Your task to perform on an android device: turn off smart reply in the gmail app Image 0: 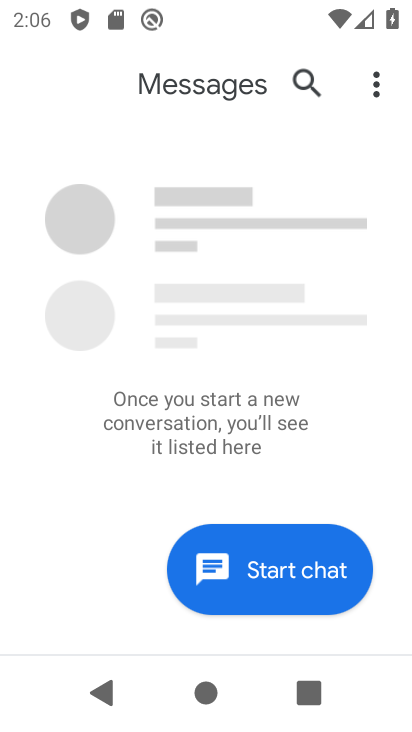
Step 0: press home button
Your task to perform on an android device: turn off smart reply in the gmail app Image 1: 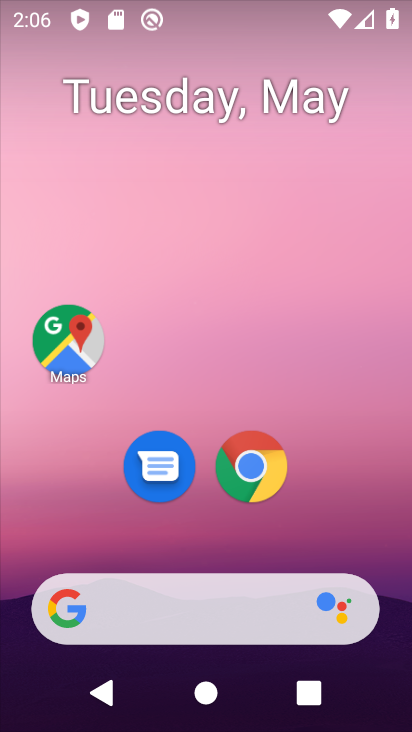
Step 1: drag from (372, 201) to (387, 23)
Your task to perform on an android device: turn off smart reply in the gmail app Image 2: 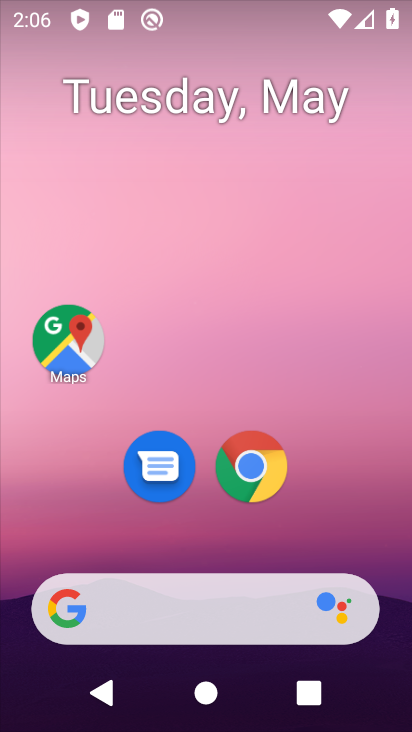
Step 2: drag from (320, 562) to (347, 1)
Your task to perform on an android device: turn off smart reply in the gmail app Image 3: 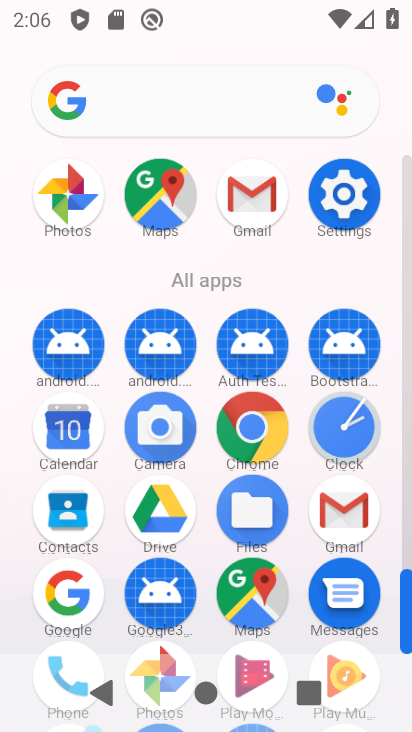
Step 3: click (329, 509)
Your task to perform on an android device: turn off smart reply in the gmail app Image 4: 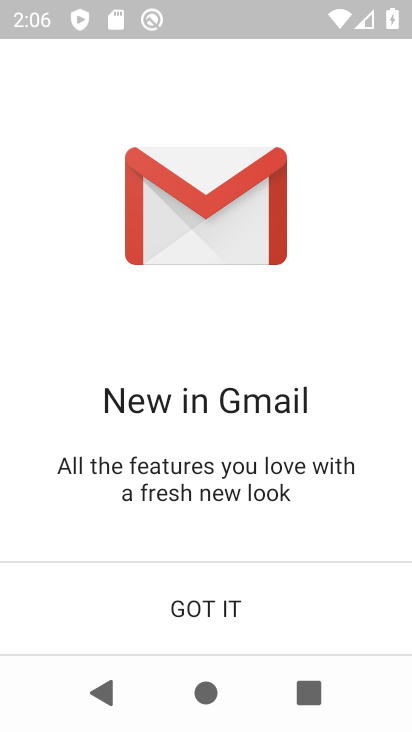
Step 4: click (246, 610)
Your task to perform on an android device: turn off smart reply in the gmail app Image 5: 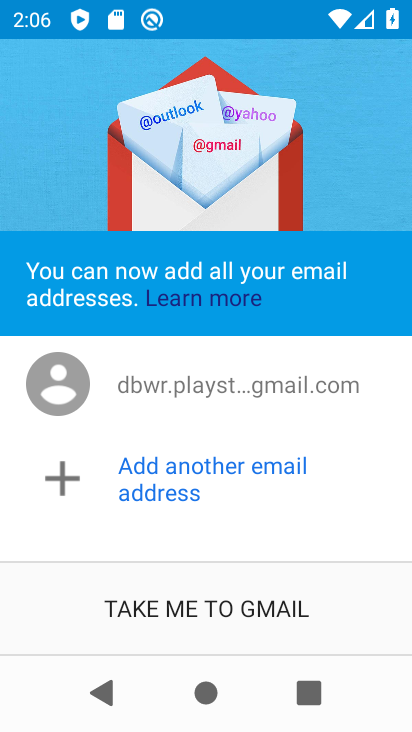
Step 5: click (225, 600)
Your task to perform on an android device: turn off smart reply in the gmail app Image 6: 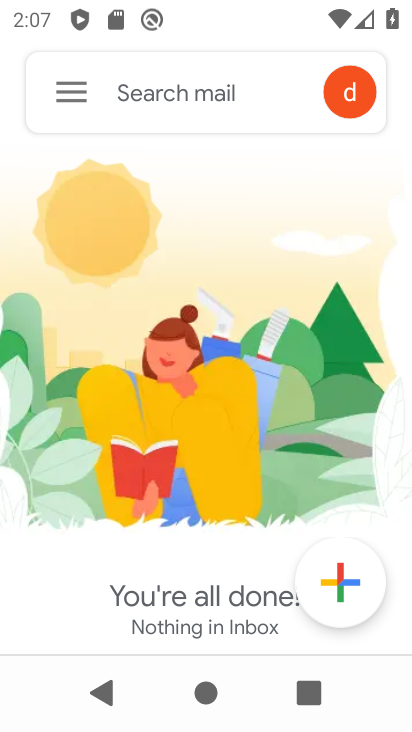
Step 6: click (76, 104)
Your task to perform on an android device: turn off smart reply in the gmail app Image 7: 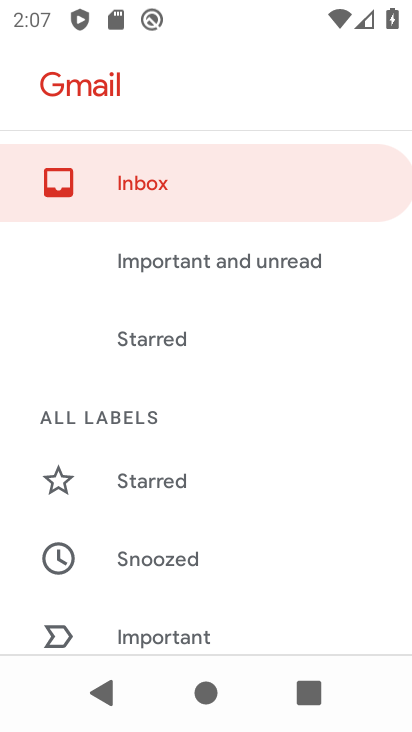
Step 7: drag from (195, 534) to (293, 152)
Your task to perform on an android device: turn off smart reply in the gmail app Image 8: 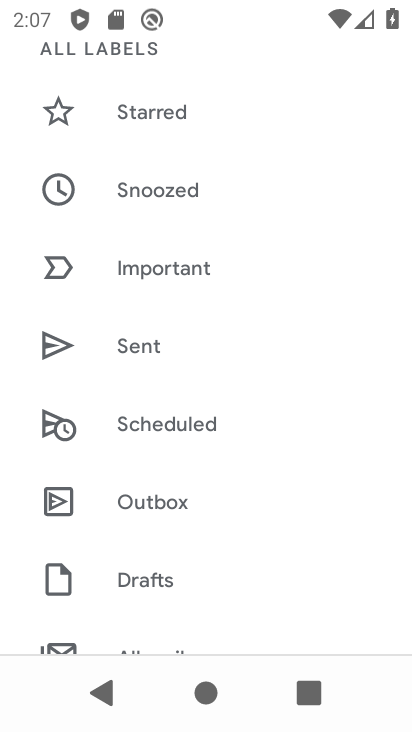
Step 8: drag from (171, 513) to (162, 166)
Your task to perform on an android device: turn off smart reply in the gmail app Image 9: 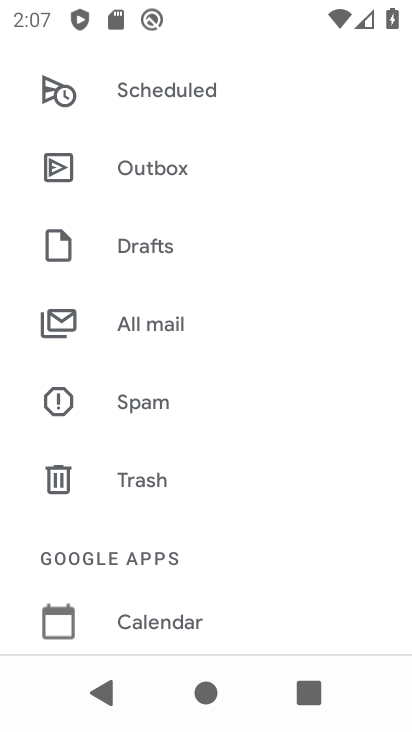
Step 9: drag from (102, 579) to (113, 121)
Your task to perform on an android device: turn off smart reply in the gmail app Image 10: 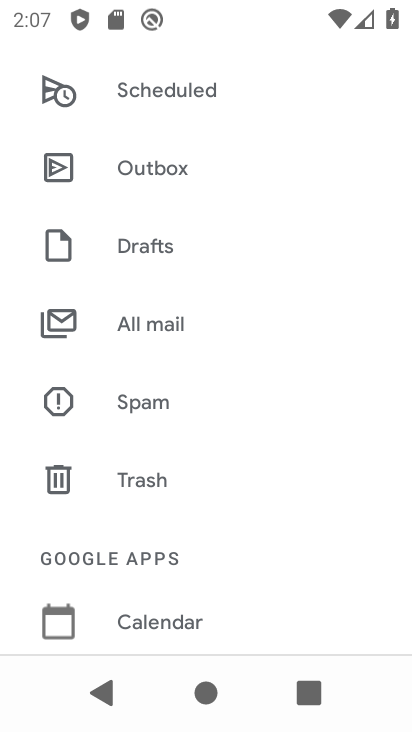
Step 10: drag from (171, 545) to (298, 58)
Your task to perform on an android device: turn off smart reply in the gmail app Image 11: 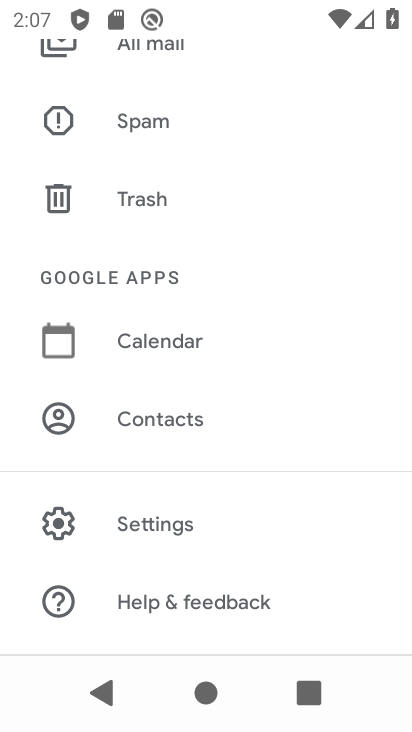
Step 11: click (209, 539)
Your task to perform on an android device: turn off smart reply in the gmail app Image 12: 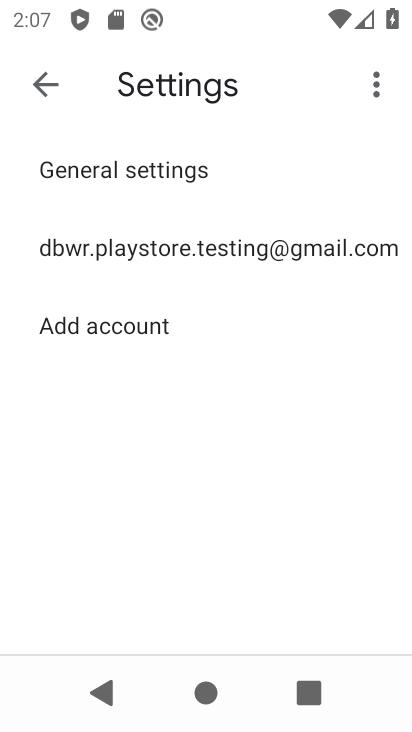
Step 12: click (215, 266)
Your task to perform on an android device: turn off smart reply in the gmail app Image 13: 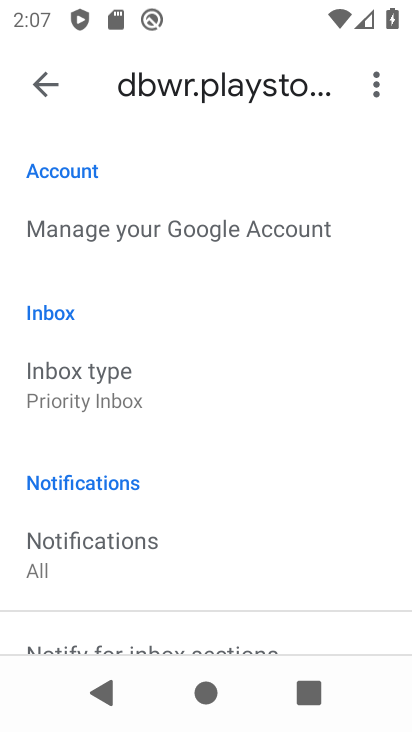
Step 13: drag from (196, 519) to (256, 40)
Your task to perform on an android device: turn off smart reply in the gmail app Image 14: 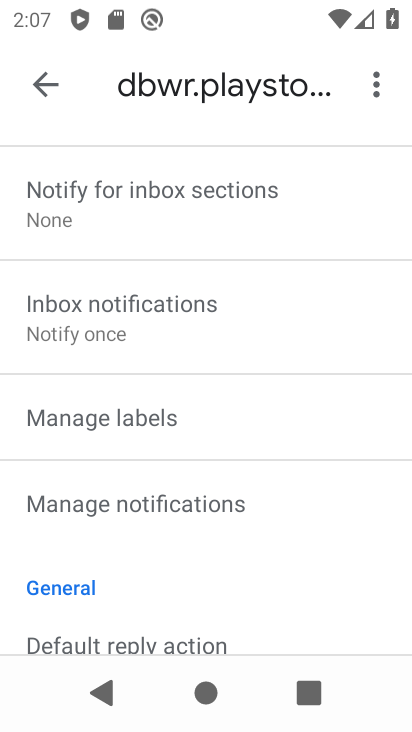
Step 14: drag from (235, 514) to (261, 177)
Your task to perform on an android device: turn off smart reply in the gmail app Image 15: 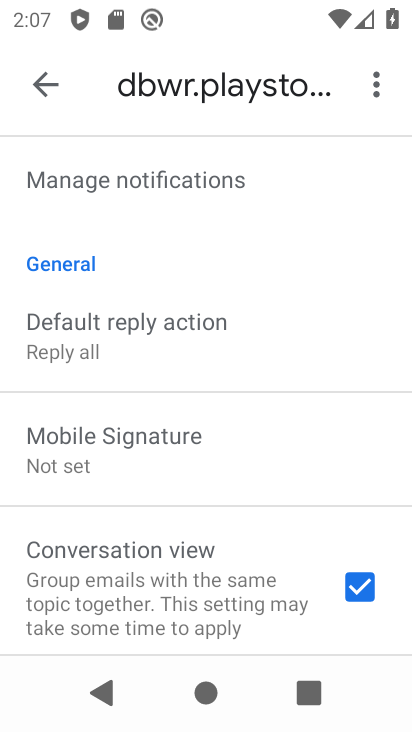
Step 15: drag from (188, 507) to (205, 190)
Your task to perform on an android device: turn off smart reply in the gmail app Image 16: 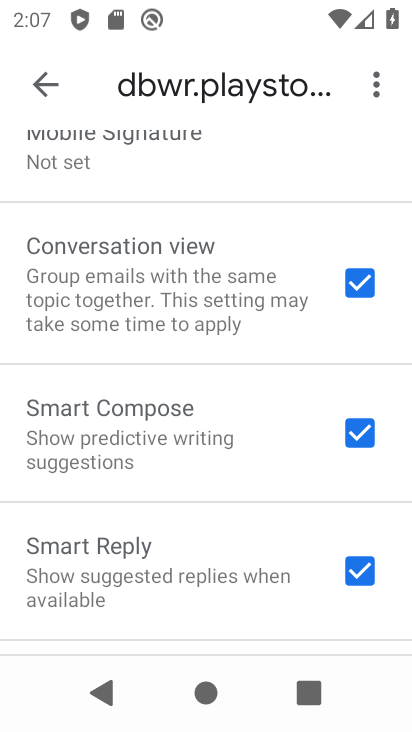
Step 16: click (368, 571)
Your task to perform on an android device: turn off smart reply in the gmail app Image 17: 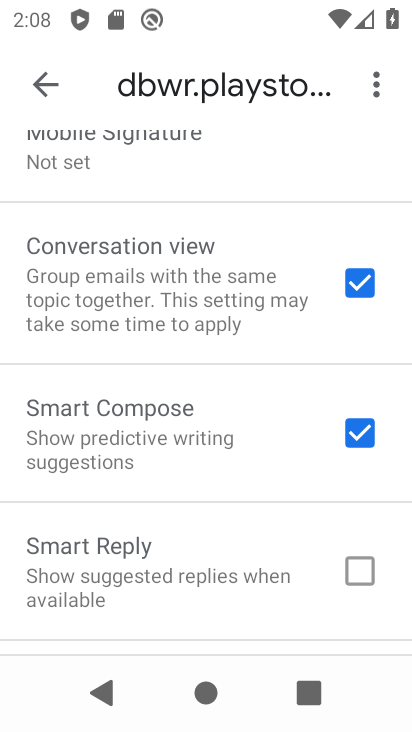
Step 17: task complete